Your task to perform on an android device: Show me productivity apps on the Play Store Image 0: 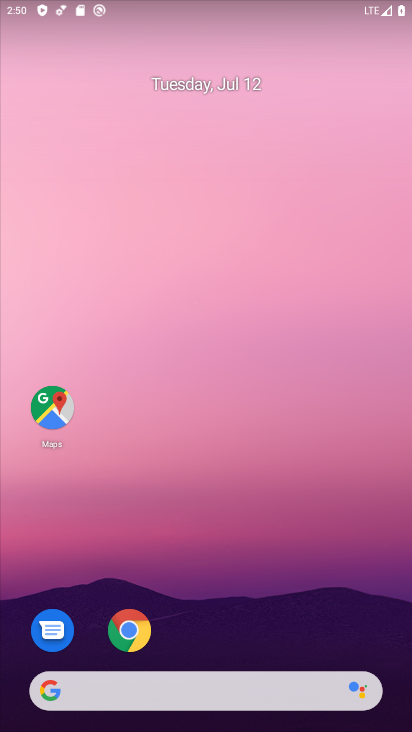
Step 0: drag from (169, 585) to (196, 22)
Your task to perform on an android device: Show me productivity apps on the Play Store Image 1: 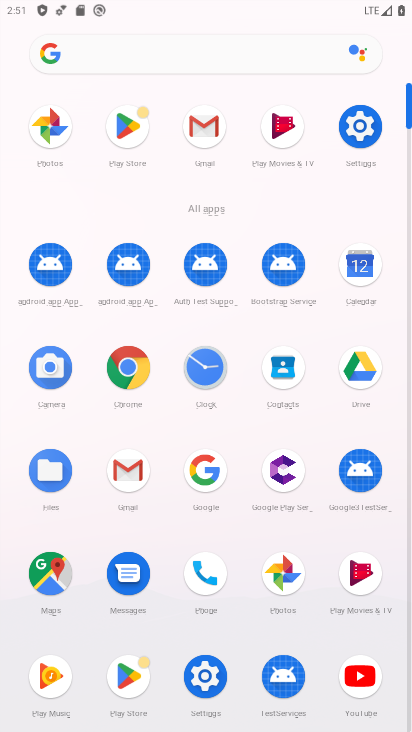
Step 1: click (138, 675)
Your task to perform on an android device: Show me productivity apps on the Play Store Image 2: 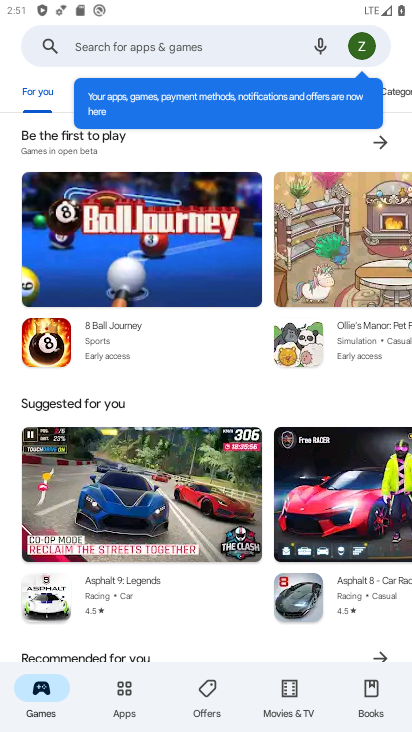
Step 2: click (120, 699)
Your task to perform on an android device: Show me productivity apps on the Play Store Image 3: 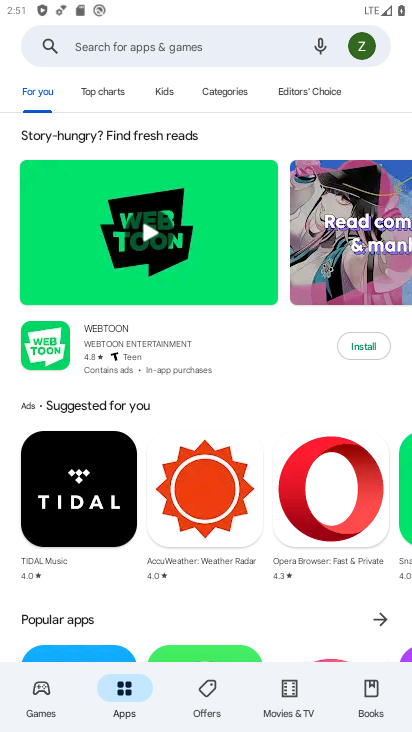
Step 3: click (222, 89)
Your task to perform on an android device: Show me productivity apps on the Play Store Image 4: 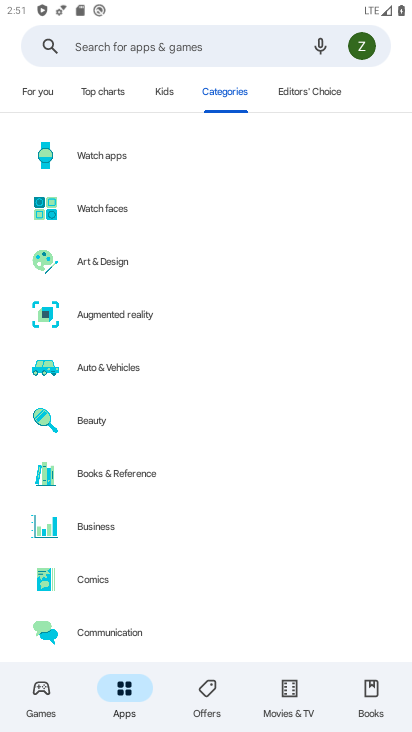
Step 4: drag from (194, 599) to (214, 0)
Your task to perform on an android device: Show me productivity apps on the Play Store Image 5: 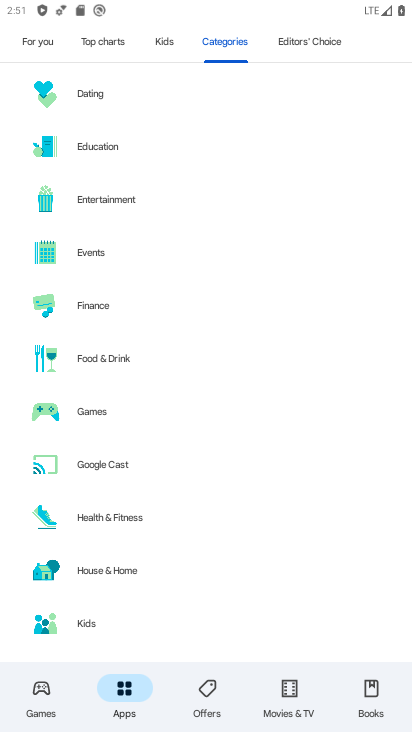
Step 5: drag from (214, 566) to (223, 14)
Your task to perform on an android device: Show me productivity apps on the Play Store Image 6: 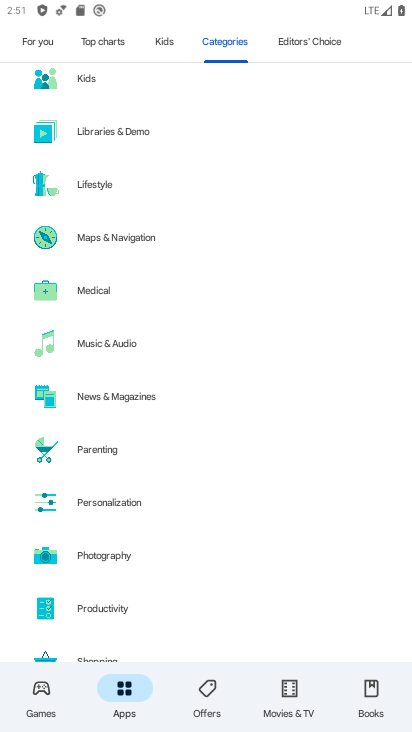
Step 6: click (104, 610)
Your task to perform on an android device: Show me productivity apps on the Play Store Image 7: 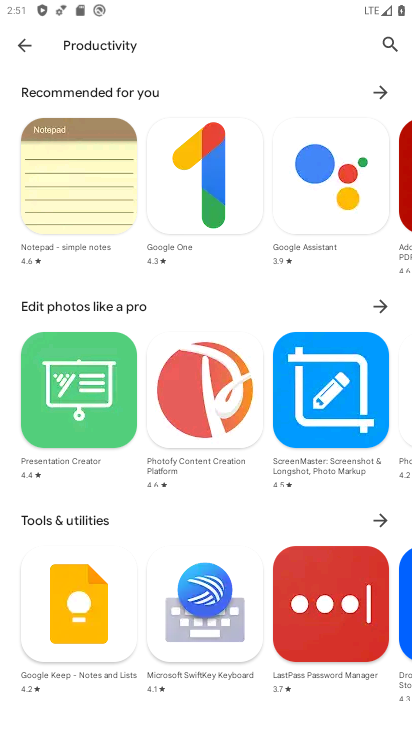
Step 7: task complete